Your task to perform on an android device: turn smart compose on in the gmail app Image 0: 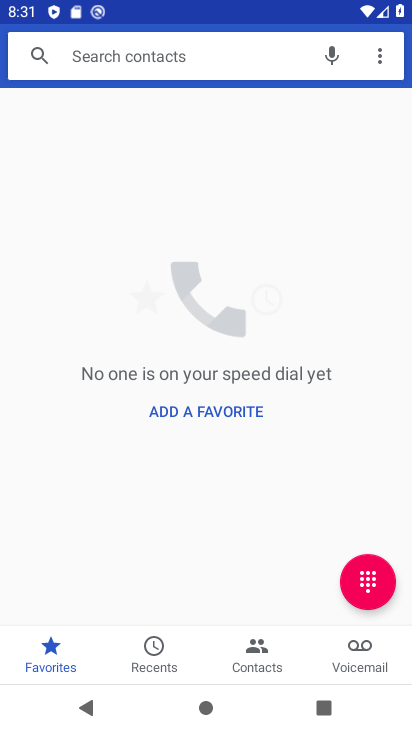
Step 0: press home button
Your task to perform on an android device: turn smart compose on in the gmail app Image 1: 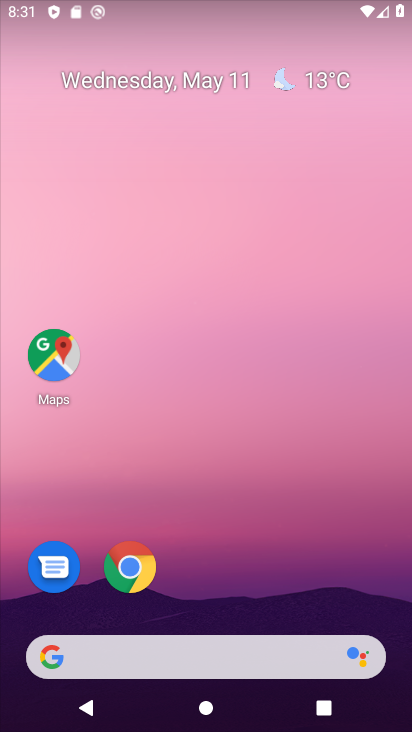
Step 1: drag from (218, 595) to (242, 21)
Your task to perform on an android device: turn smart compose on in the gmail app Image 2: 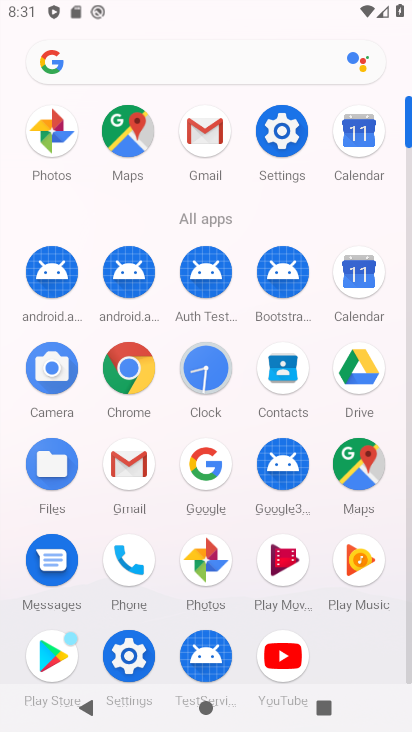
Step 2: click (135, 497)
Your task to perform on an android device: turn smart compose on in the gmail app Image 3: 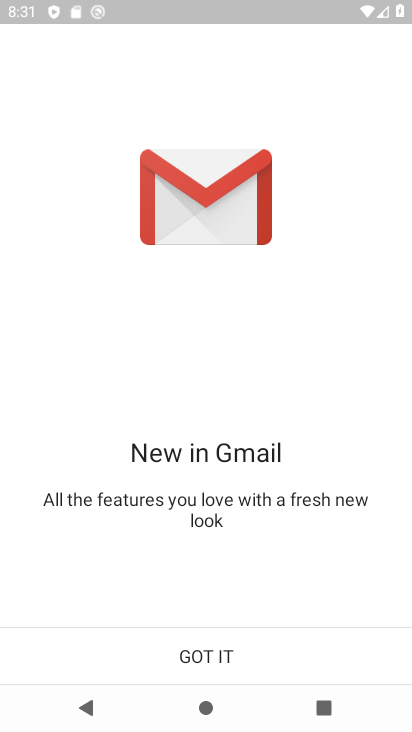
Step 3: click (228, 663)
Your task to perform on an android device: turn smart compose on in the gmail app Image 4: 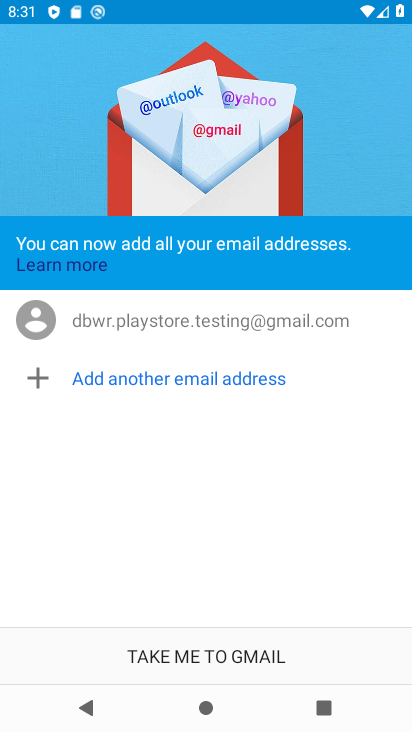
Step 4: click (229, 658)
Your task to perform on an android device: turn smart compose on in the gmail app Image 5: 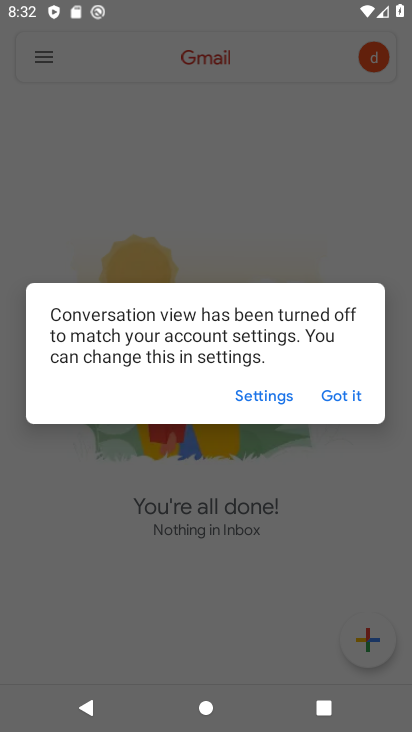
Step 5: click (331, 401)
Your task to perform on an android device: turn smart compose on in the gmail app Image 6: 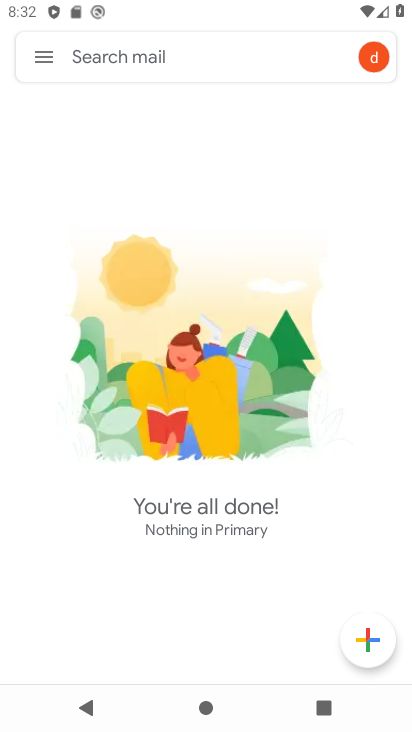
Step 6: click (50, 66)
Your task to perform on an android device: turn smart compose on in the gmail app Image 7: 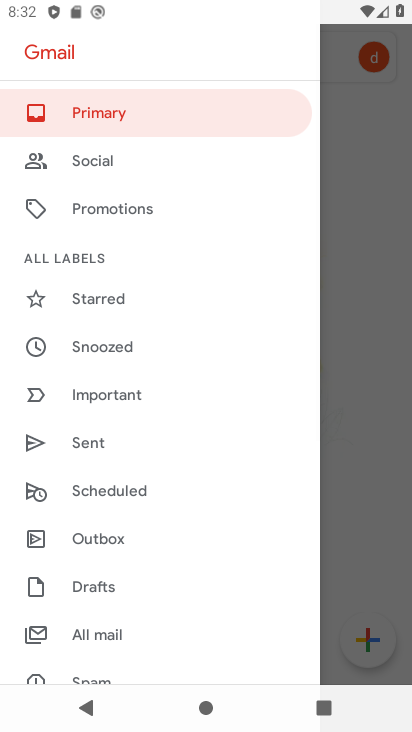
Step 7: drag from (105, 624) to (114, 66)
Your task to perform on an android device: turn smart compose on in the gmail app Image 8: 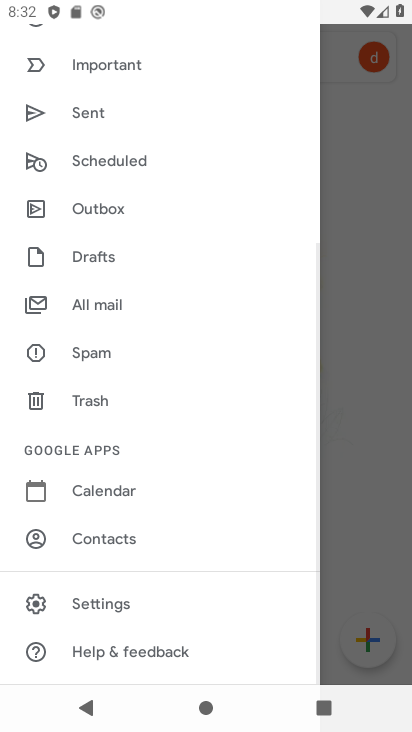
Step 8: click (84, 622)
Your task to perform on an android device: turn smart compose on in the gmail app Image 9: 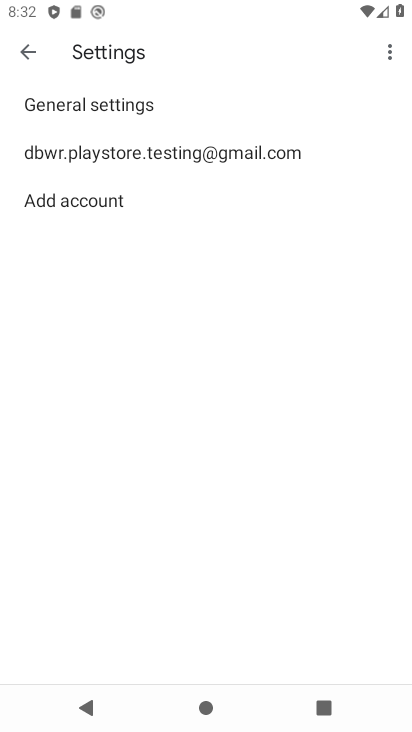
Step 9: click (146, 157)
Your task to perform on an android device: turn smart compose on in the gmail app Image 10: 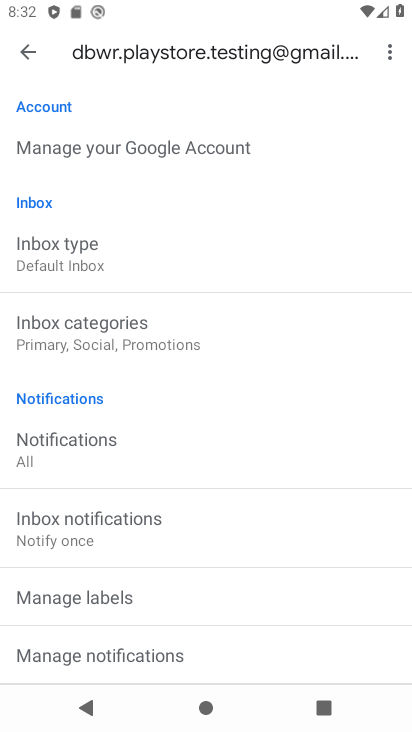
Step 10: task complete